Your task to perform on an android device: find snoozed emails in the gmail app Image 0: 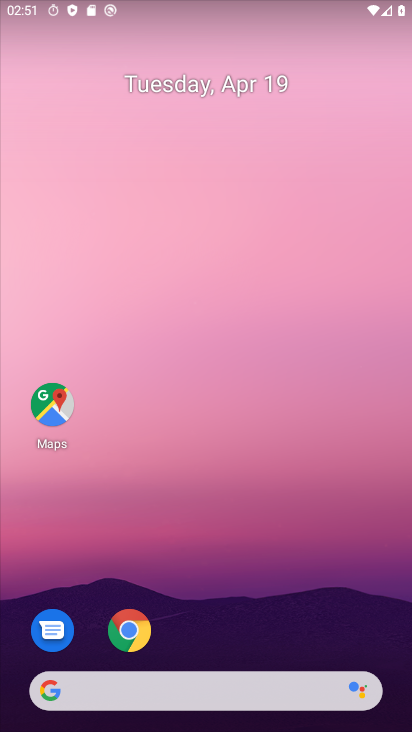
Step 0: drag from (294, 538) to (273, 167)
Your task to perform on an android device: find snoozed emails in the gmail app Image 1: 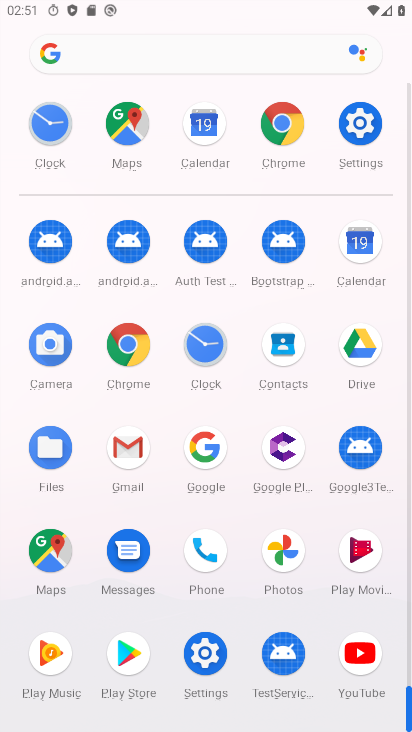
Step 1: click (127, 452)
Your task to perform on an android device: find snoozed emails in the gmail app Image 2: 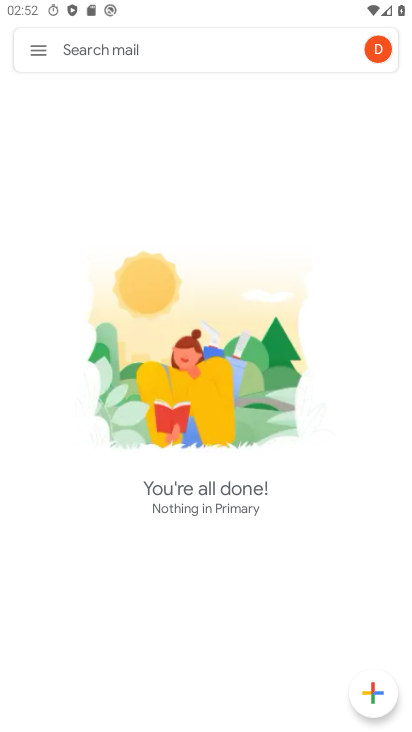
Step 2: click (34, 49)
Your task to perform on an android device: find snoozed emails in the gmail app Image 3: 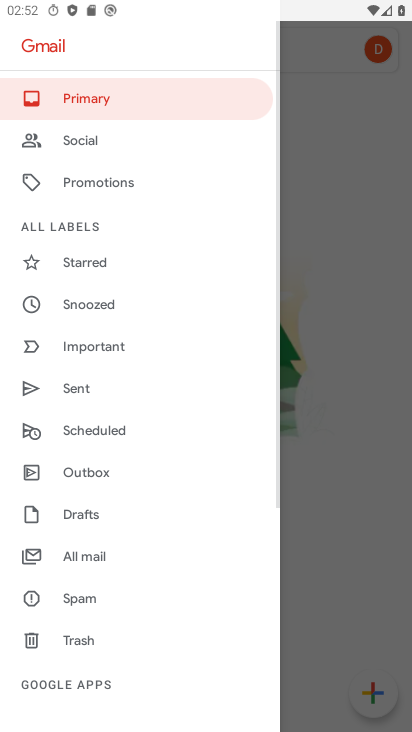
Step 3: click (87, 308)
Your task to perform on an android device: find snoozed emails in the gmail app Image 4: 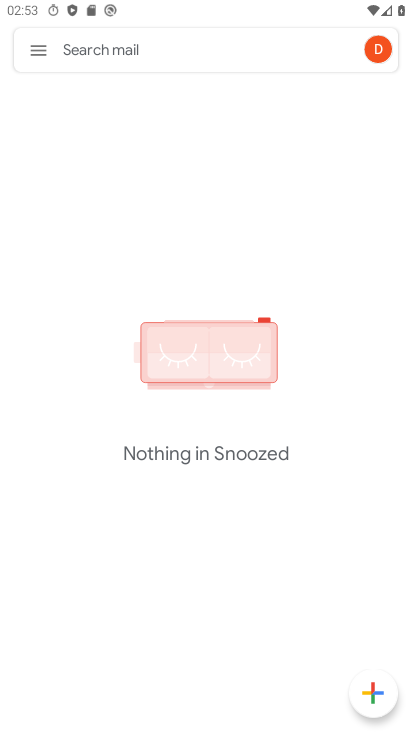
Step 4: task complete